Your task to perform on an android device: Open accessibility settings Image 0: 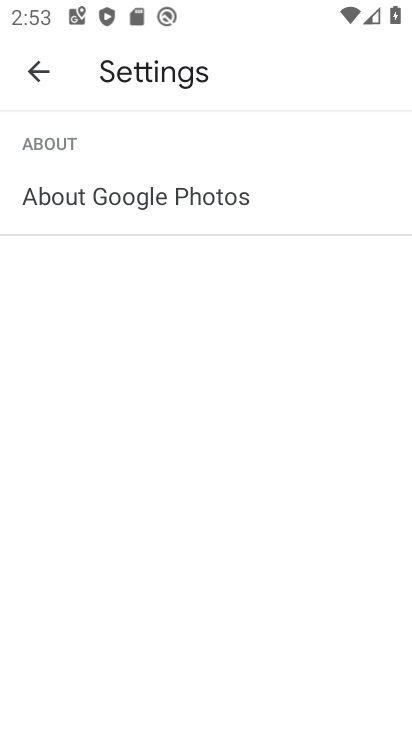
Step 0: click (315, 508)
Your task to perform on an android device: Open accessibility settings Image 1: 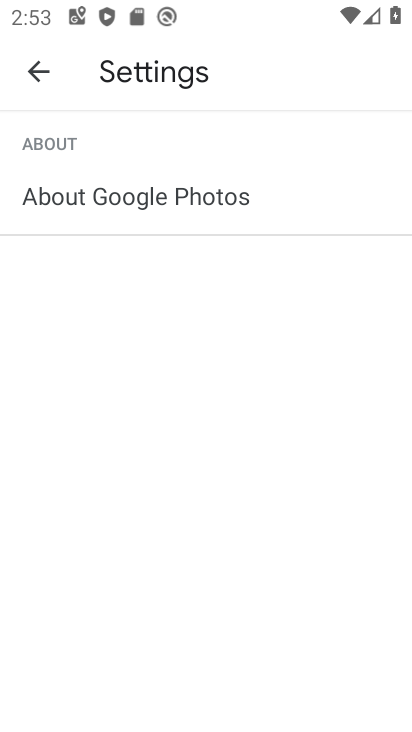
Step 1: press home button
Your task to perform on an android device: Open accessibility settings Image 2: 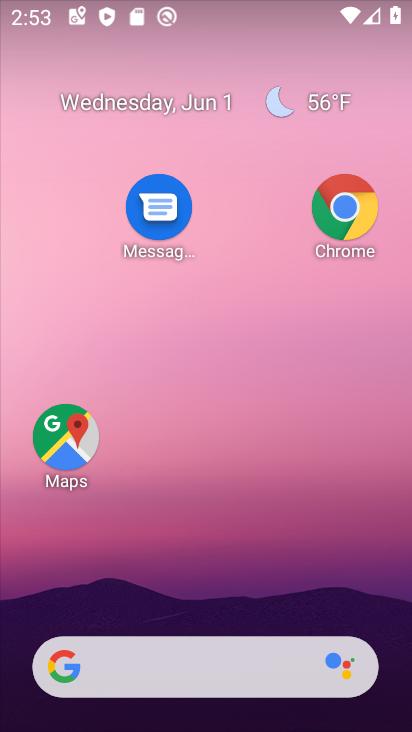
Step 2: drag from (210, 588) to (303, 5)
Your task to perform on an android device: Open accessibility settings Image 3: 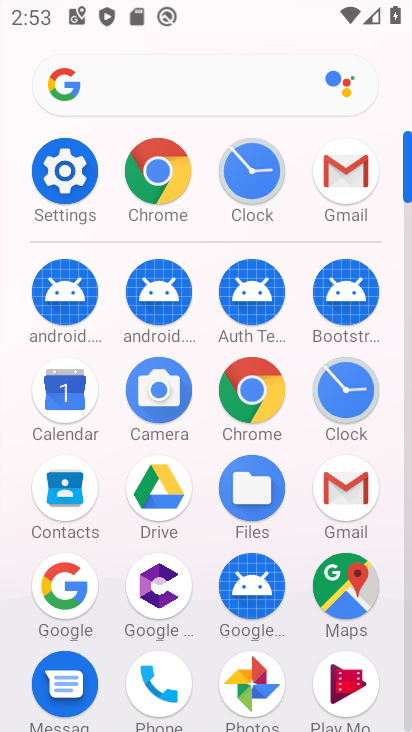
Step 3: click (79, 163)
Your task to perform on an android device: Open accessibility settings Image 4: 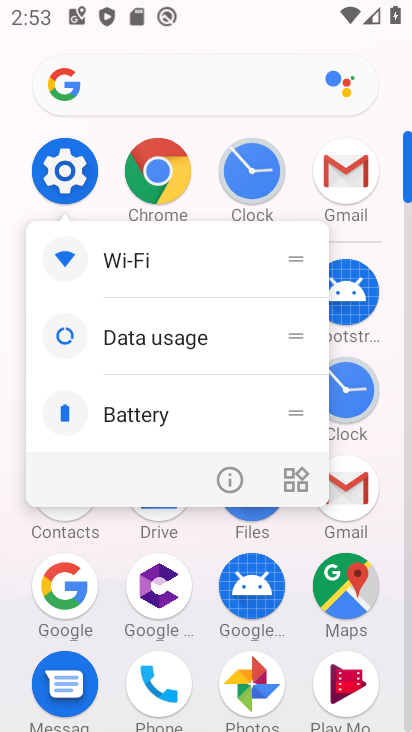
Step 4: click (228, 480)
Your task to perform on an android device: Open accessibility settings Image 5: 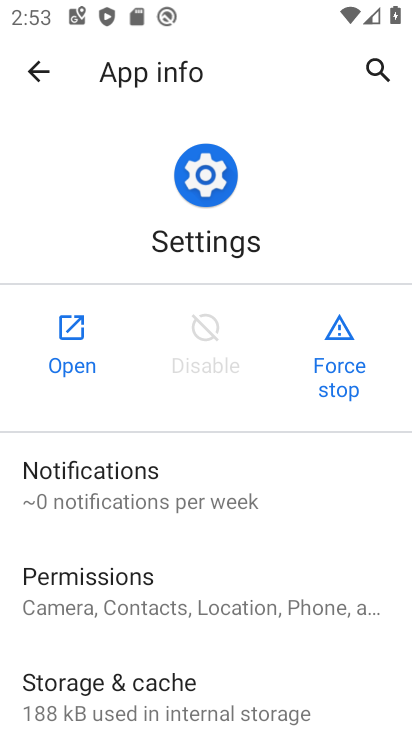
Step 5: click (83, 347)
Your task to perform on an android device: Open accessibility settings Image 6: 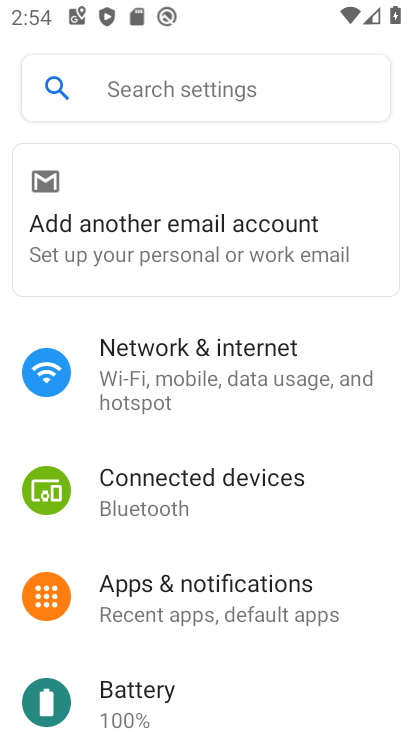
Step 6: drag from (232, 614) to (264, 171)
Your task to perform on an android device: Open accessibility settings Image 7: 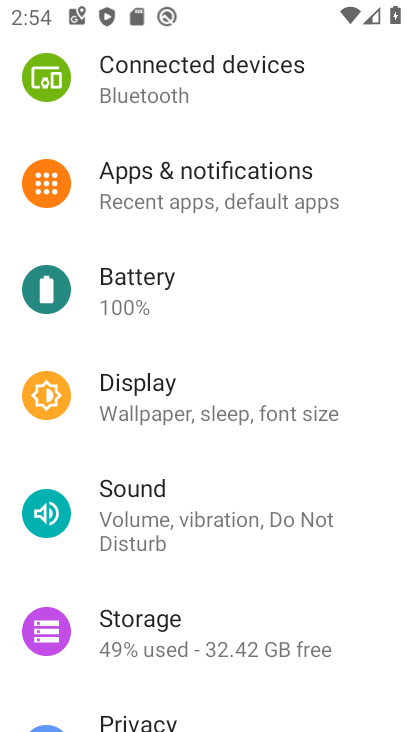
Step 7: drag from (218, 587) to (259, 26)
Your task to perform on an android device: Open accessibility settings Image 8: 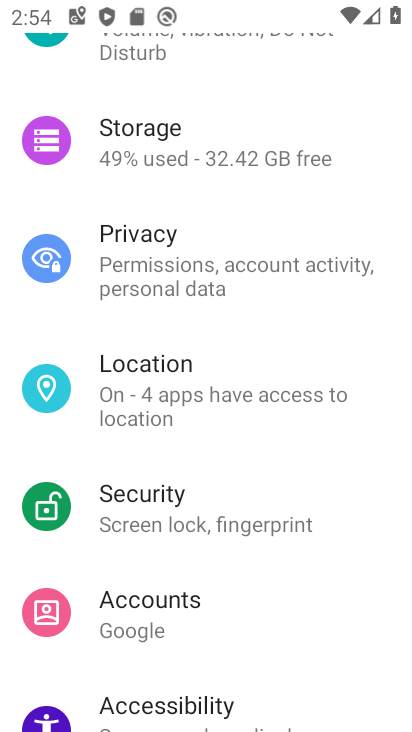
Step 8: drag from (229, 560) to (317, 176)
Your task to perform on an android device: Open accessibility settings Image 9: 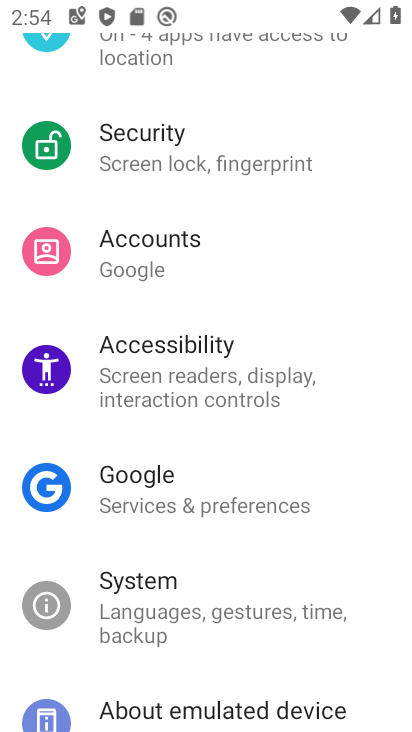
Step 9: click (199, 350)
Your task to perform on an android device: Open accessibility settings Image 10: 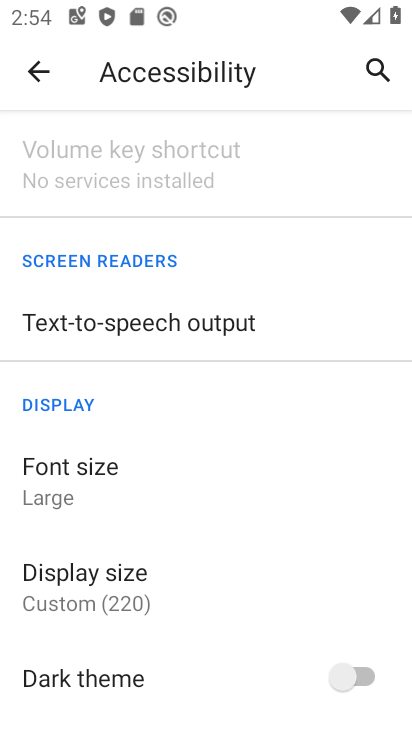
Step 10: task complete